Your task to perform on an android device: Show me the alarms in the clock app Image 0: 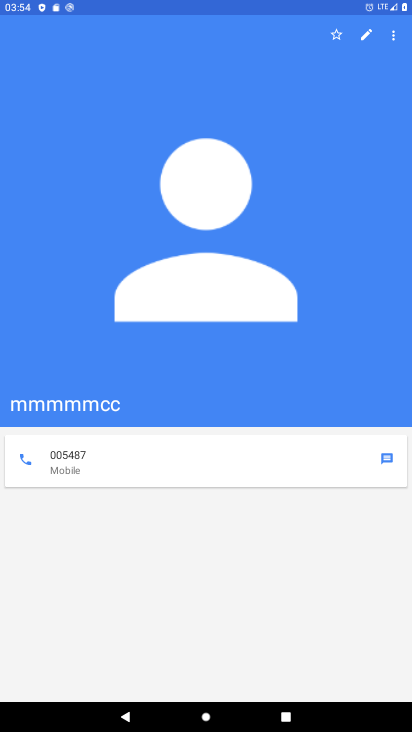
Step 0: press home button
Your task to perform on an android device: Show me the alarms in the clock app Image 1: 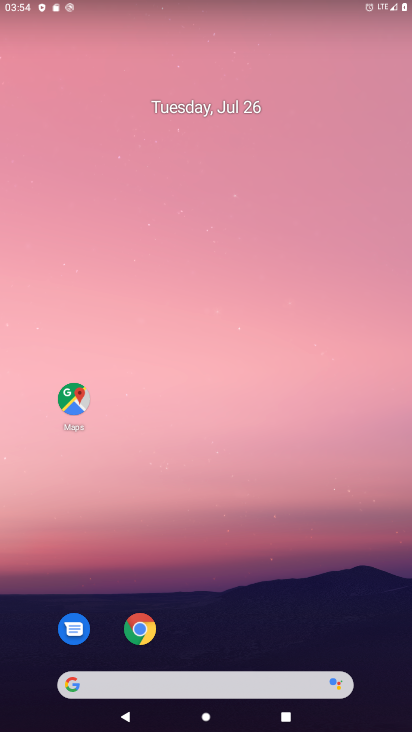
Step 1: drag from (286, 637) to (283, 120)
Your task to perform on an android device: Show me the alarms in the clock app Image 2: 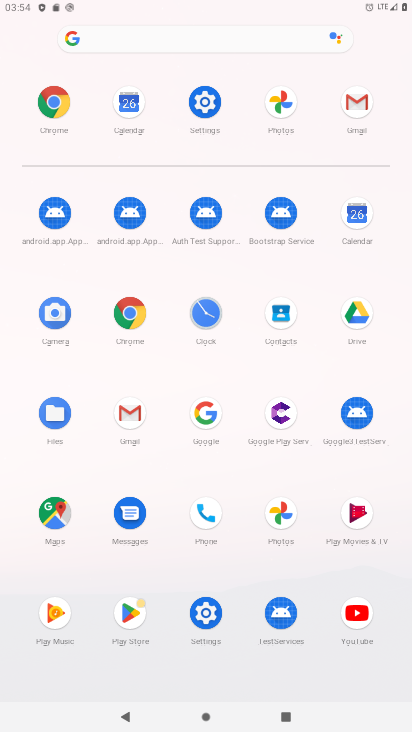
Step 2: click (200, 308)
Your task to perform on an android device: Show me the alarms in the clock app Image 3: 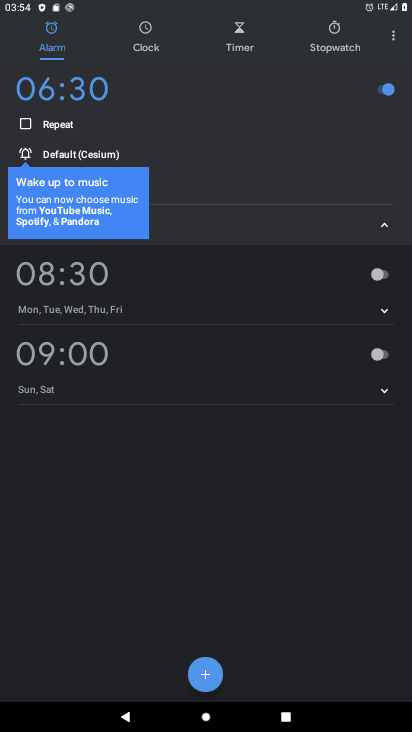
Step 3: task complete